Your task to perform on an android device: Show me recent news Image 0: 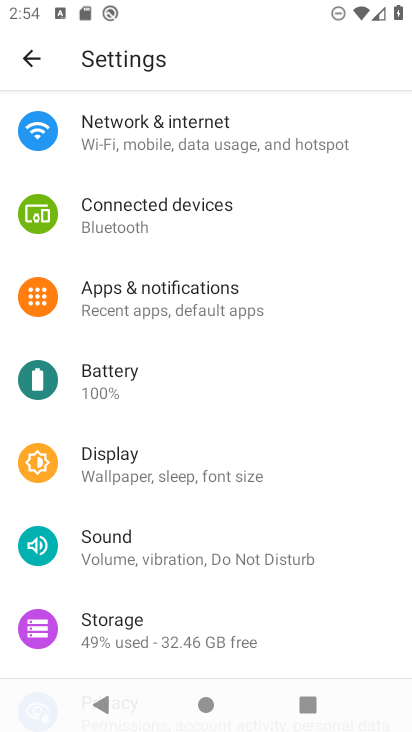
Step 0: press home button
Your task to perform on an android device: Show me recent news Image 1: 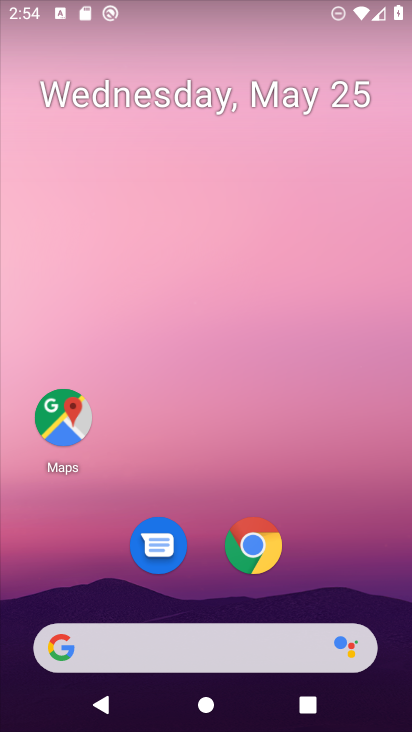
Step 1: drag from (307, 539) to (313, 15)
Your task to perform on an android device: Show me recent news Image 2: 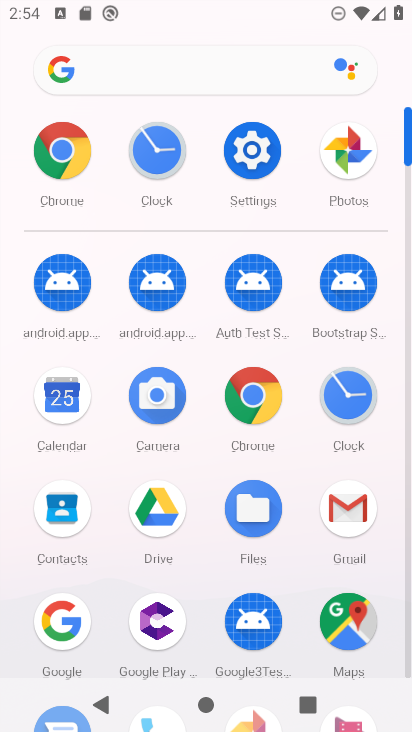
Step 2: click (188, 69)
Your task to perform on an android device: Show me recent news Image 3: 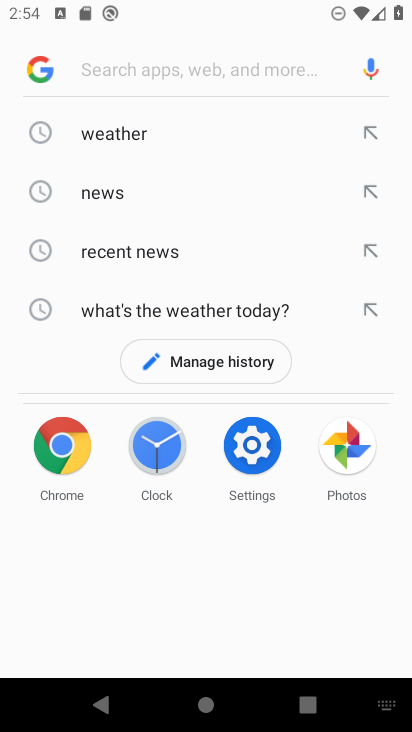
Step 3: click (118, 185)
Your task to perform on an android device: Show me recent news Image 4: 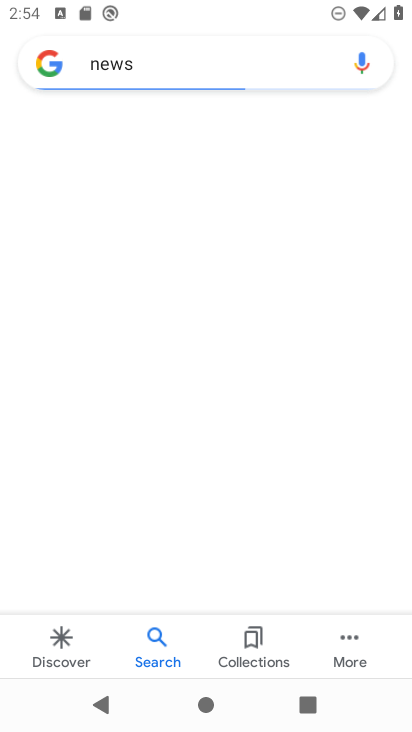
Step 4: task complete